Your task to perform on an android device: Open the map Image 0: 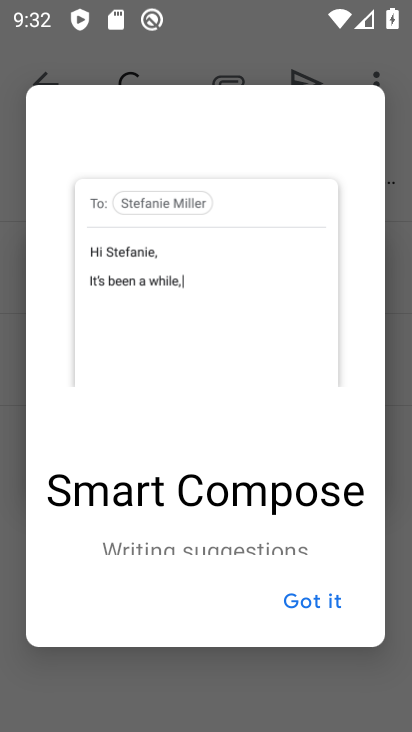
Step 0: press home button
Your task to perform on an android device: Open the map Image 1: 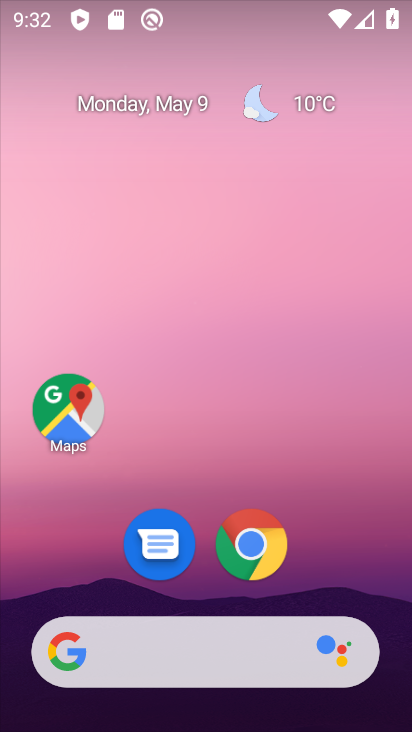
Step 1: click (62, 413)
Your task to perform on an android device: Open the map Image 2: 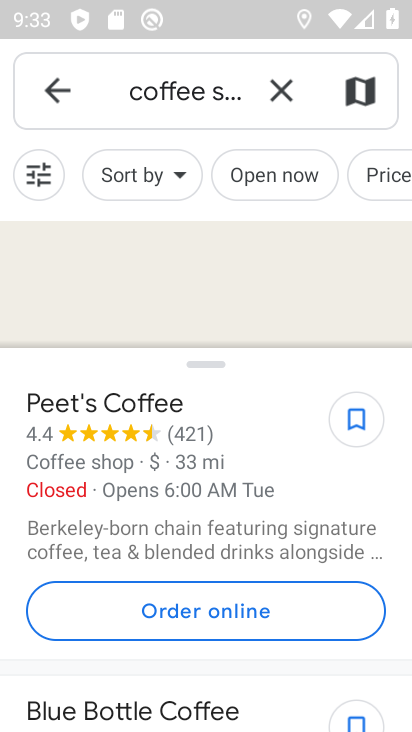
Step 2: task complete